Your task to perform on an android device: How do I get to the nearest Sprint Store? Image 0: 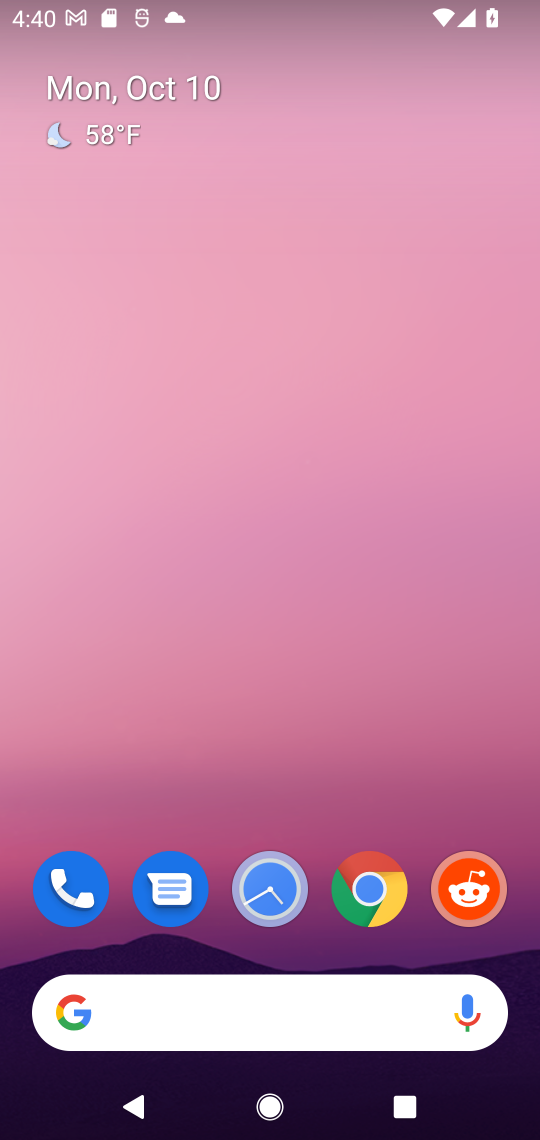
Step 0: click (369, 893)
Your task to perform on an android device: How do I get to the nearest Sprint Store? Image 1: 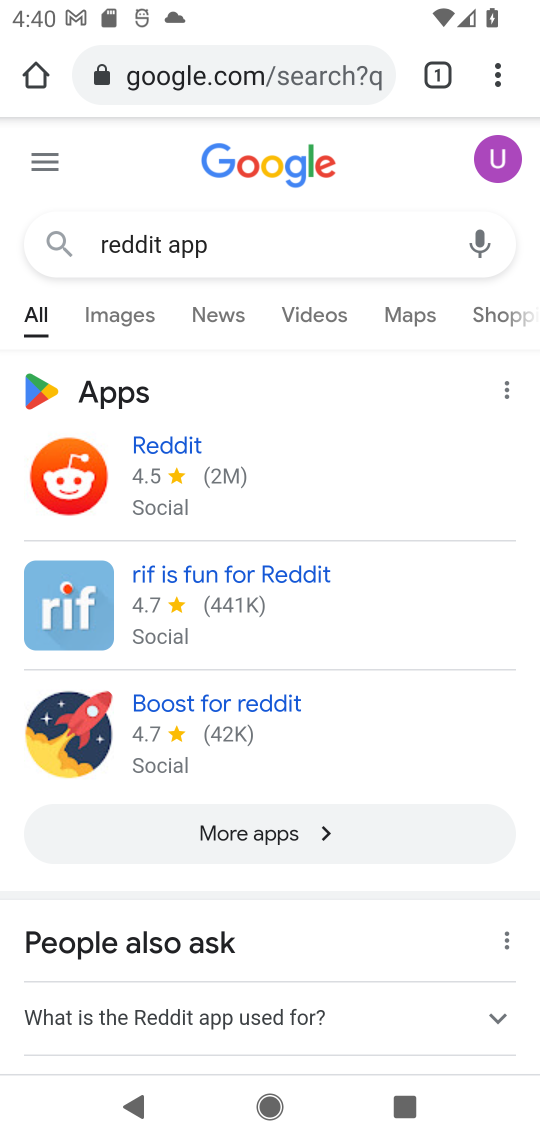
Step 1: click (268, 53)
Your task to perform on an android device: How do I get to the nearest Sprint Store? Image 2: 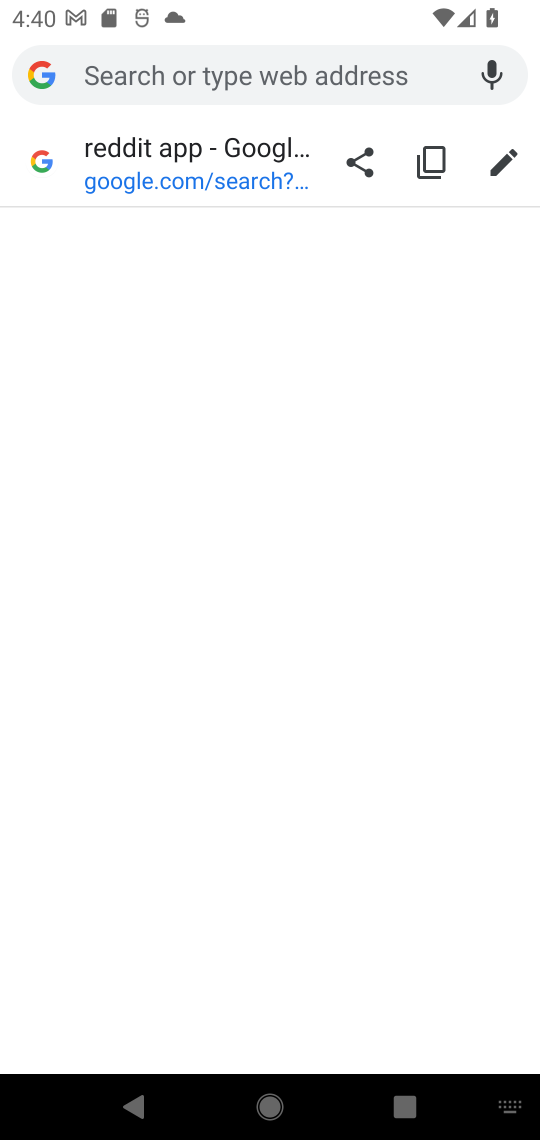
Step 2: type "How do I get to the nearest Sprint Store?"
Your task to perform on an android device: How do I get to the nearest Sprint Store? Image 3: 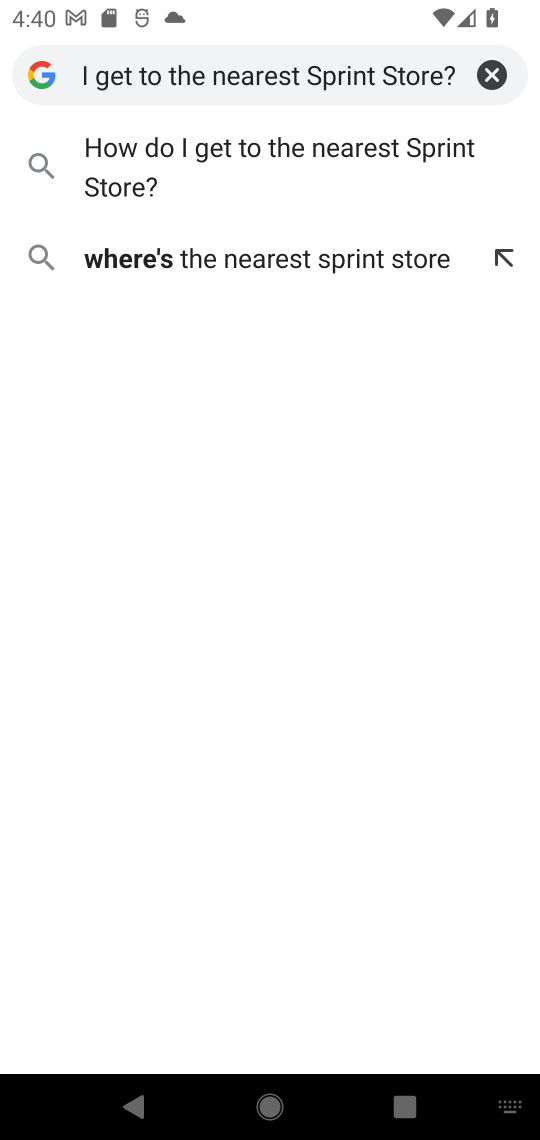
Step 3: click (214, 169)
Your task to perform on an android device: How do I get to the nearest Sprint Store? Image 4: 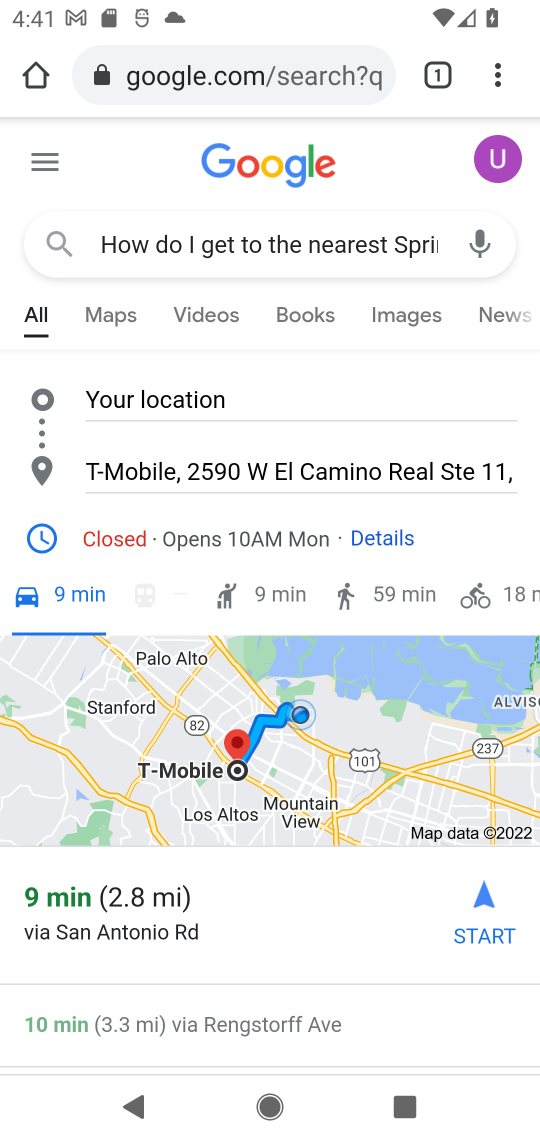
Step 4: task complete